Your task to perform on an android device: change timer sound Image 0: 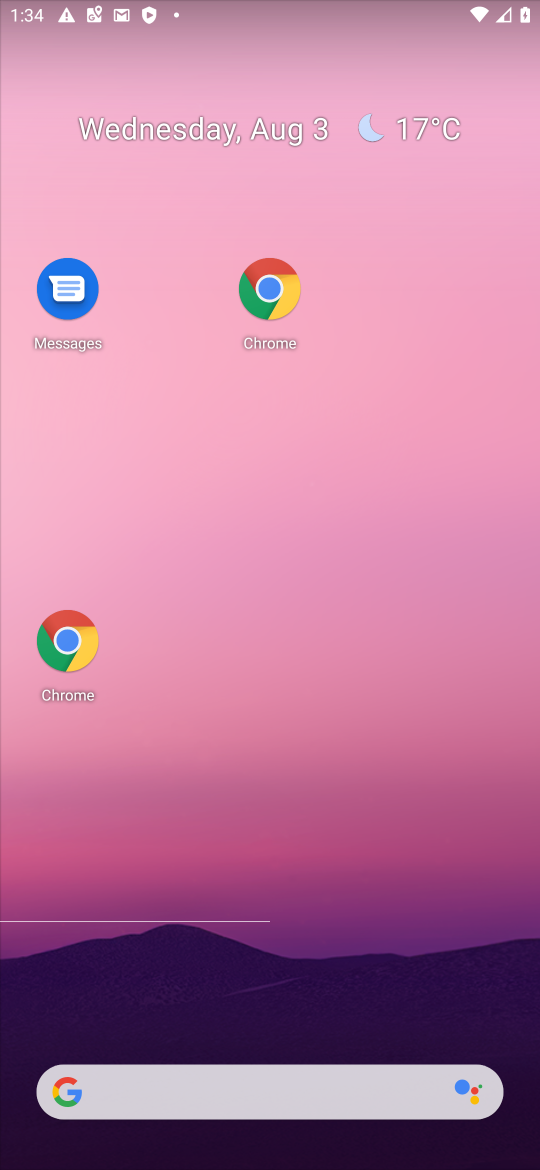
Step 0: drag from (377, 947) to (314, 226)
Your task to perform on an android device: change timer sound Image 1: 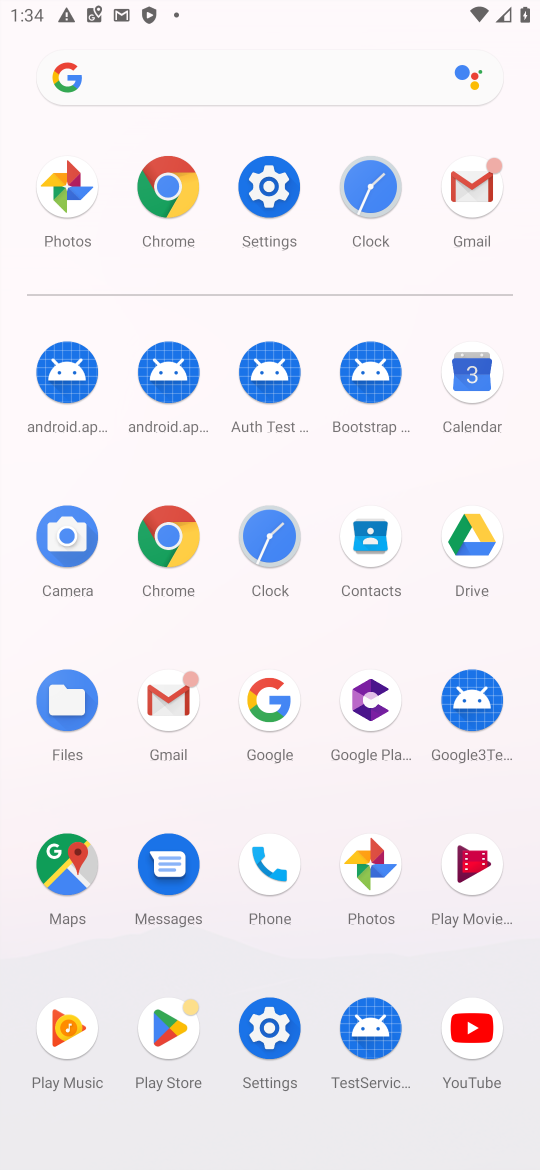
Step 1: click (283, 1036)
Your task to perform on an android device: change timer sound Image 2: 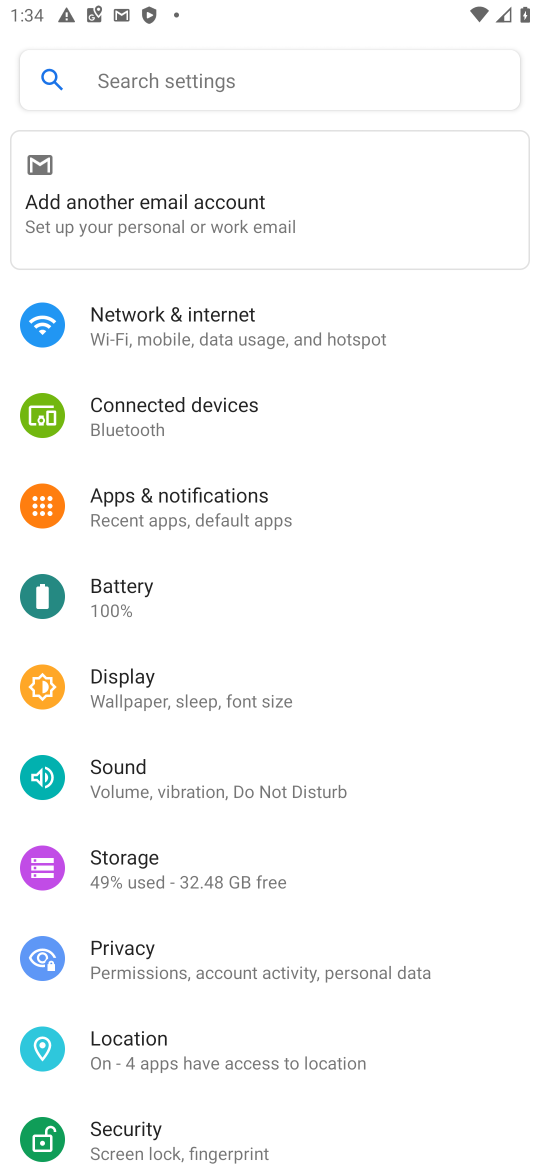
Step 2: click (249, 767)
Your task to perform on an android device: change timer sound Image 3: 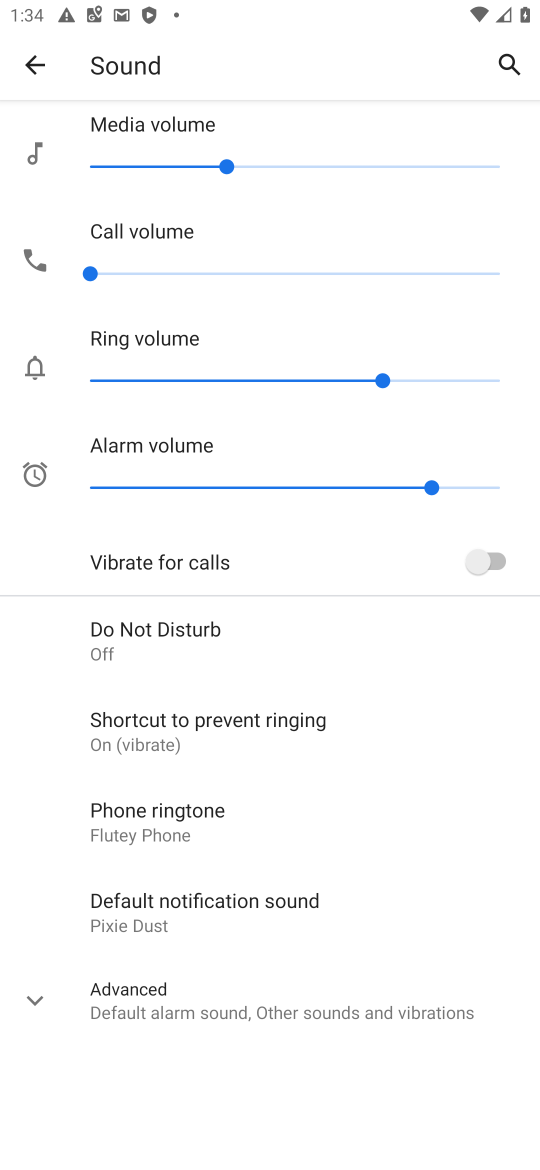
Step 3: task complete